Your task to perform on an android device: check battery use Image 0: 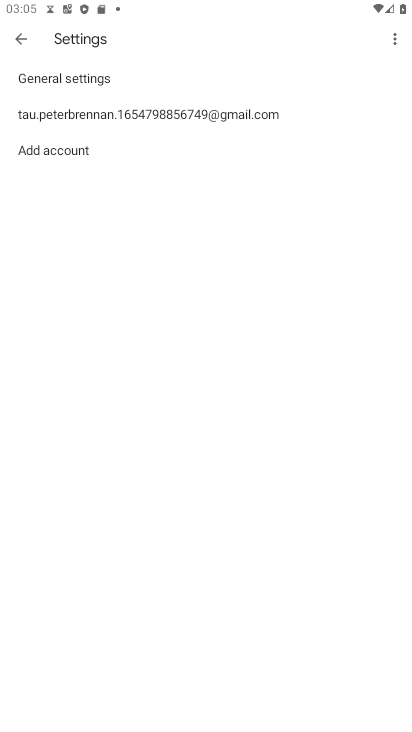
Step 0: click (195, 361)
Your task to perform on an android device: check battery use Image 1: 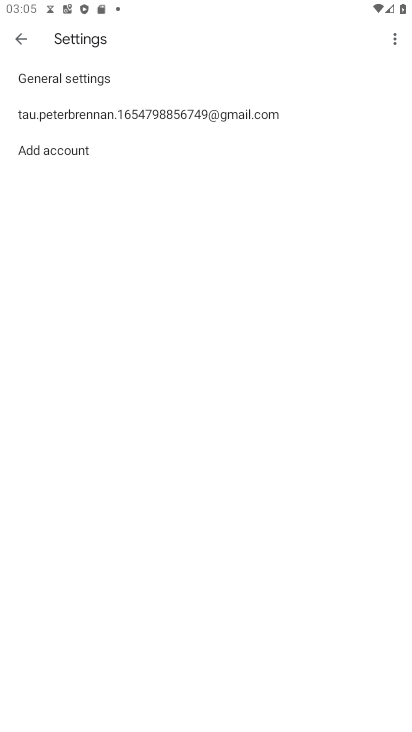
Step 1: click (21, 41)
Your task to perform on an android device: check battery use Image 2: 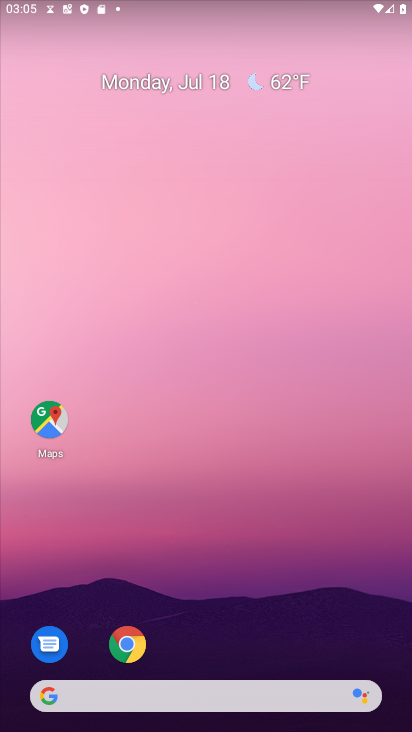
Step 2: drag from (171, 494) to (129, 212)
Your task to perform on an android device: check battery use Image 3: 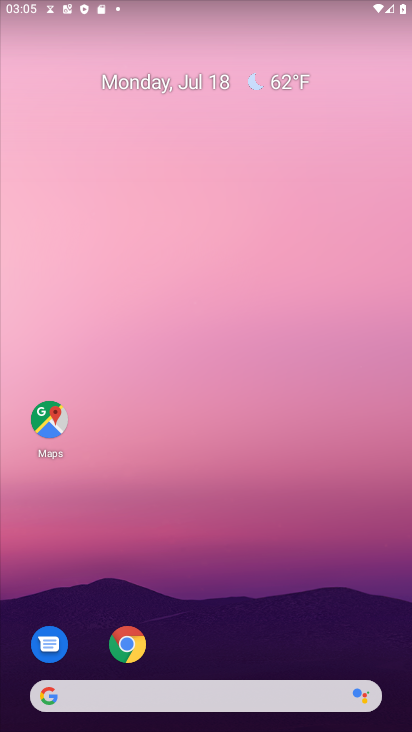
Step 3: drag from (187, 587) to (169, 292)
Your task to perform on an android device: check battery use Image 4: 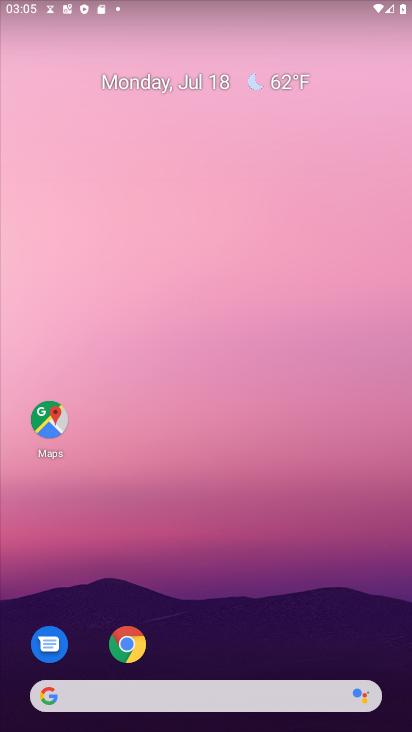
Step 4: drag from (211, 527) to (190, 224)
Your task to perform on an android device: check battery use Image 5: 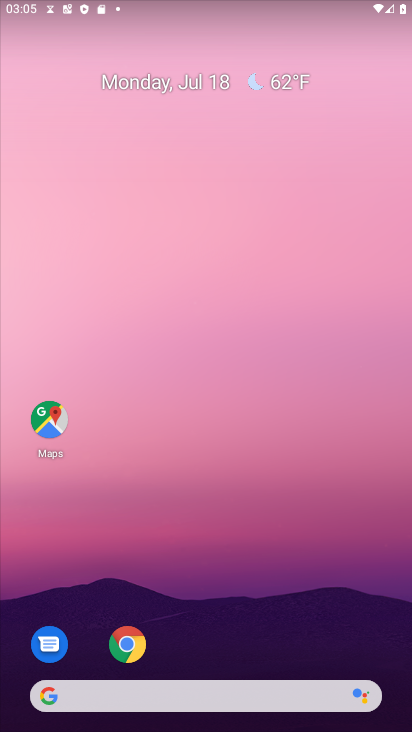
Step 5: click (267, 147)
Your task to perform on an android device: check battery use Image 6: 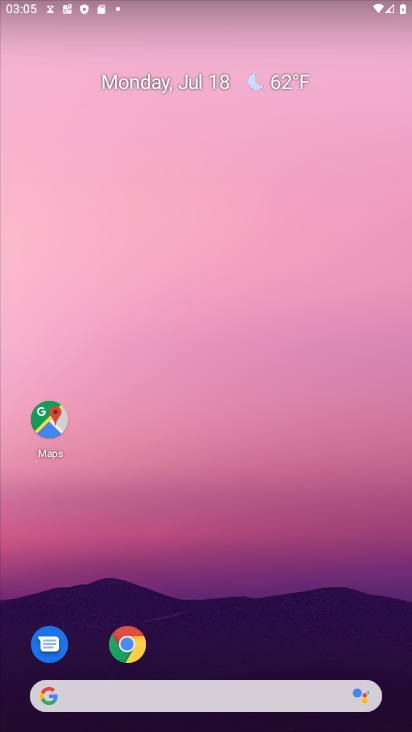
Step 6: drag from (192, 504) to (205, 189)
Your task to perform on an android device: check battery use Image 7: 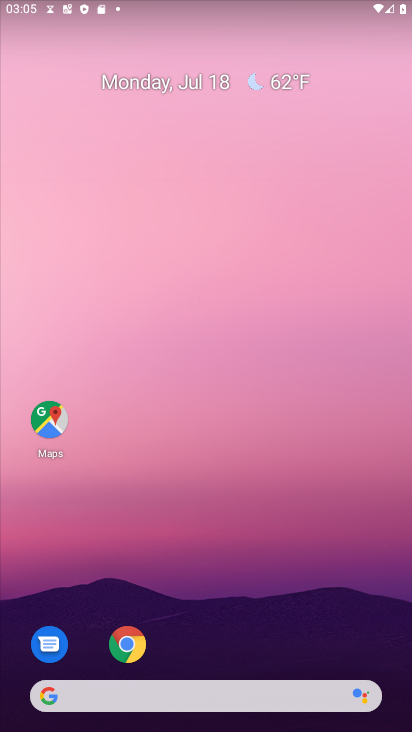
Step 7: drag from (146, 664) to (128, 193)
Your task to perform on an android device: check battery use Image 8: 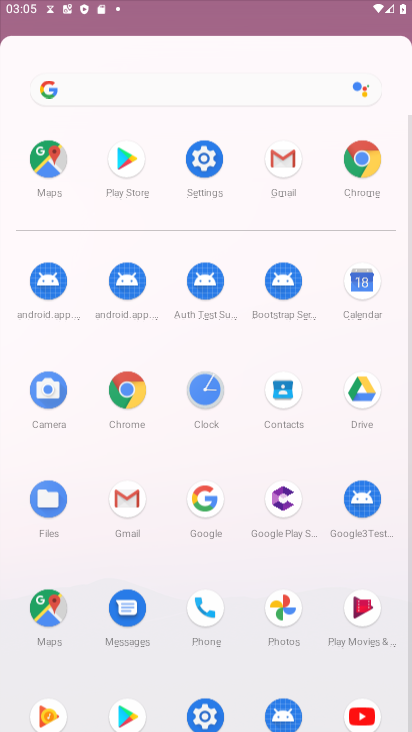
Step 8: drag from (251, 655) to (187, 287)
Your task to perform on an android device: check battery use Image 9: 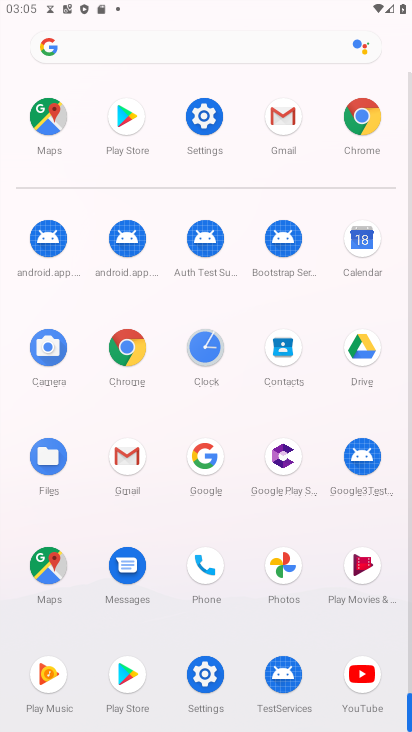
Step 9: click (191, 115)
Your task to perform on an android device: check battery use Image 10: 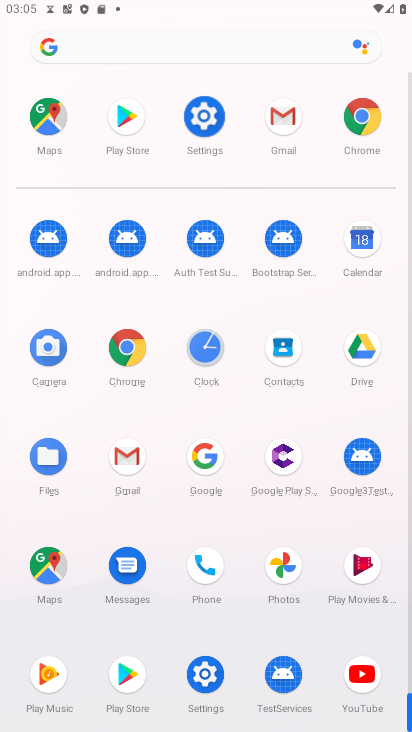
Step 10: click (193, 114)
Your task to perform on an android device: check battery use Image 11: 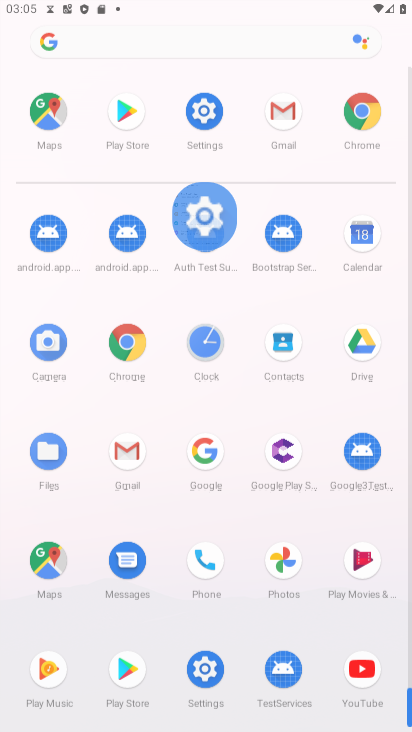
Step 11: click (194, 115)
Your task to perform on an android device: check battery use Image 12: 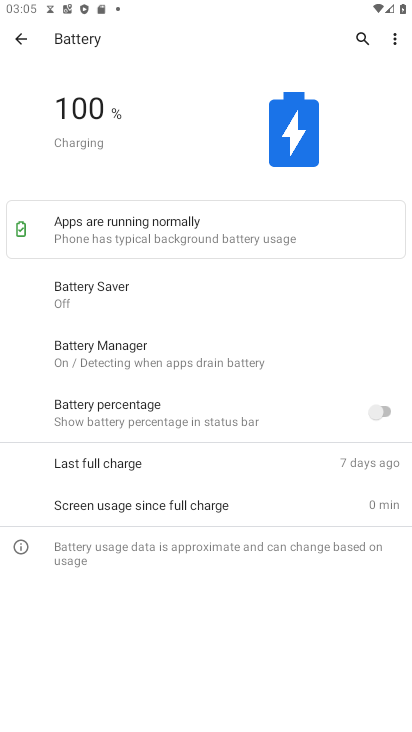
Step 12: task complete